Your task to perform on an android device: Go to CNN.com Image 0: 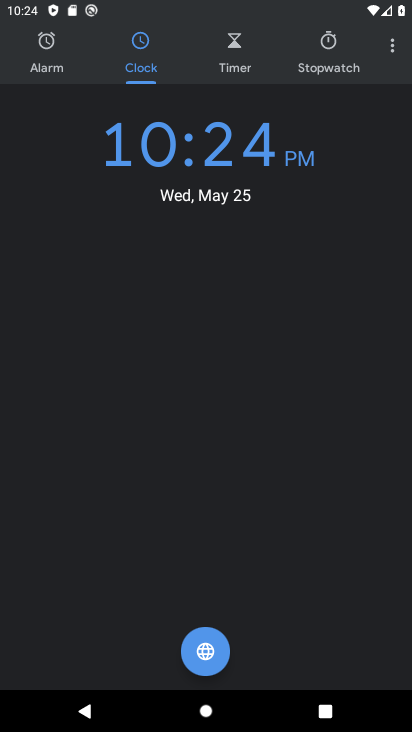
Step 0: press home button
Your task to perform on an android device: Go to CNN.com Image 1: 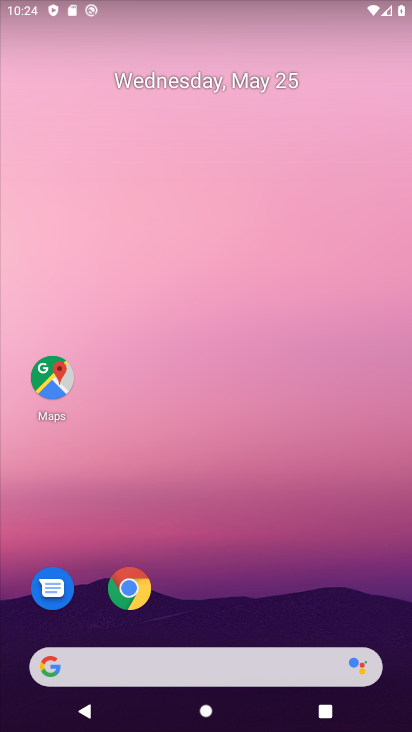
Step 1: click (132, 585)
Your task to perform on an android device: Go to CNN.com Image 2: 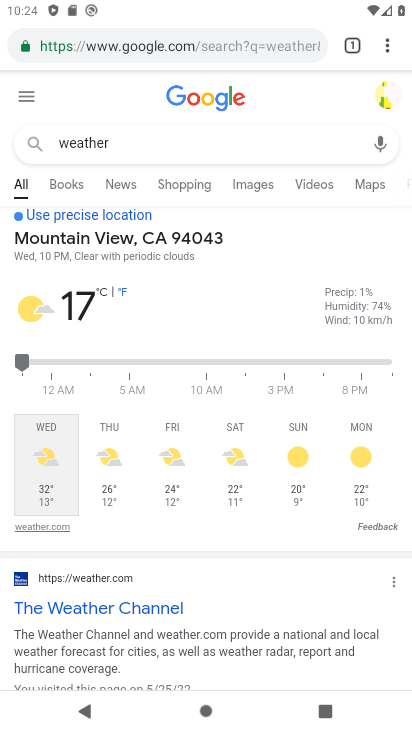
Step 2: click (236, 48)
Your task to perform on an android device: Go to CNN.com Image 3: 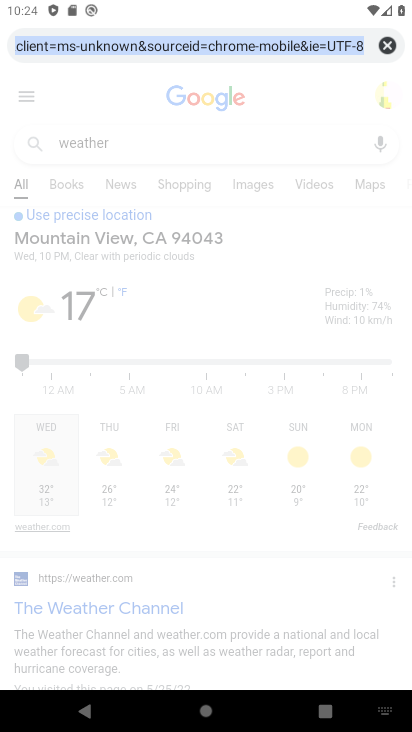
Step 3: type "cnn.con"
Your task to perform on an android device: Go to CNN.com Image 4: 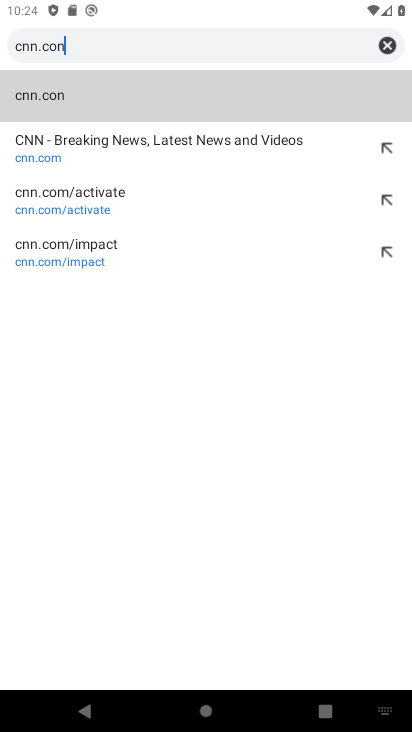
Step 4: click (51, 86)
Your task to perform on an android device: Go to CNN.com Image 5: 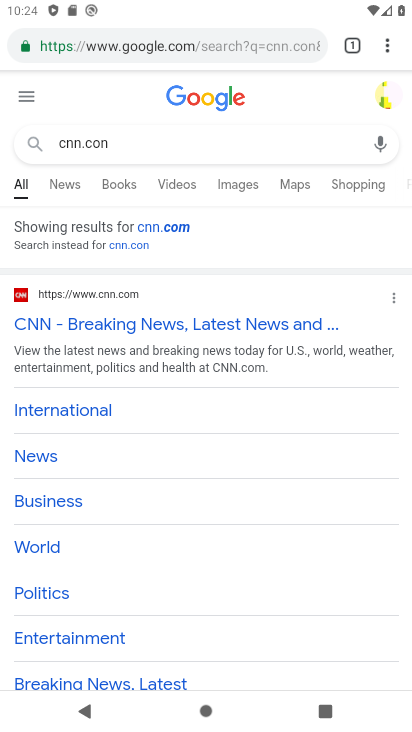
Step 5: click (133, 330)
Your task to perform on an android device: Go to CNN.com Image 6: 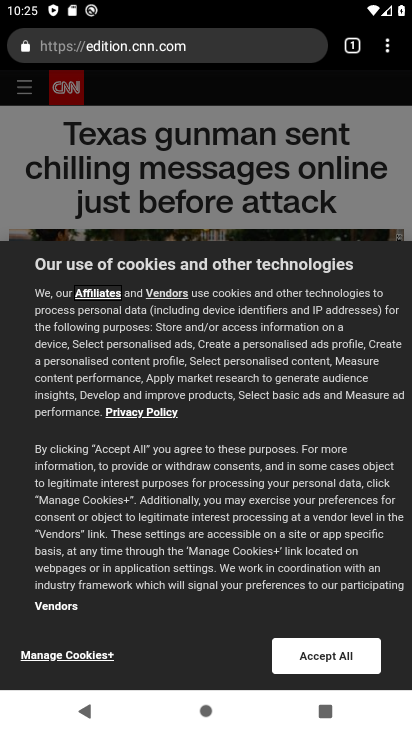
Step 6: task complete